Your task to perform on an android device: open chrome and create a bookmark for the current page Image 0: 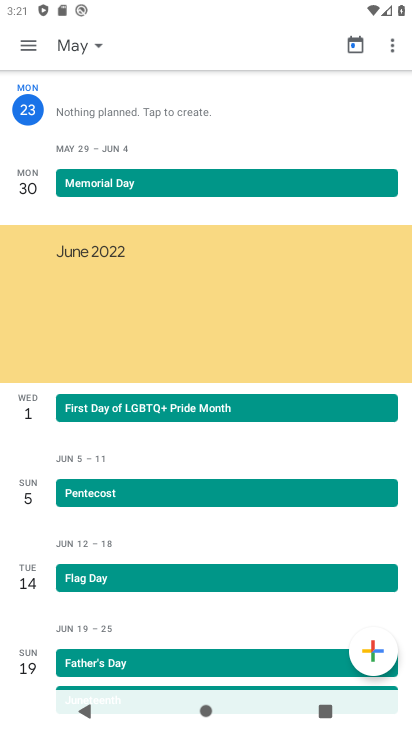
Step 0: press home button
Your task to perform on an android device: open chrome and create a bookmark for the current page Image 1: 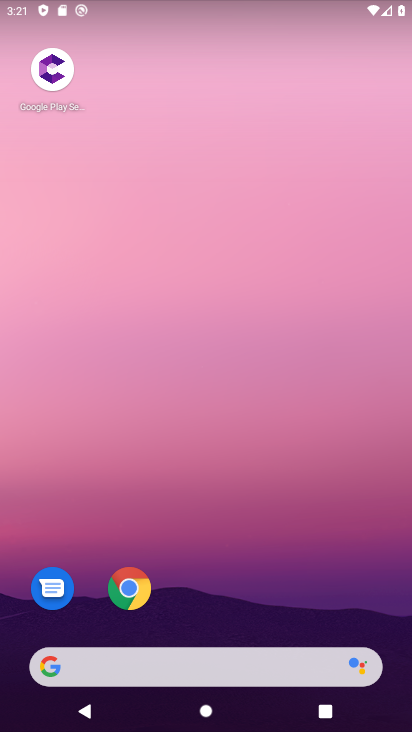
Step 1: click (126, 597)
Your task to perform on an android device: open chrome and create a bookmark for the current page Image 2: 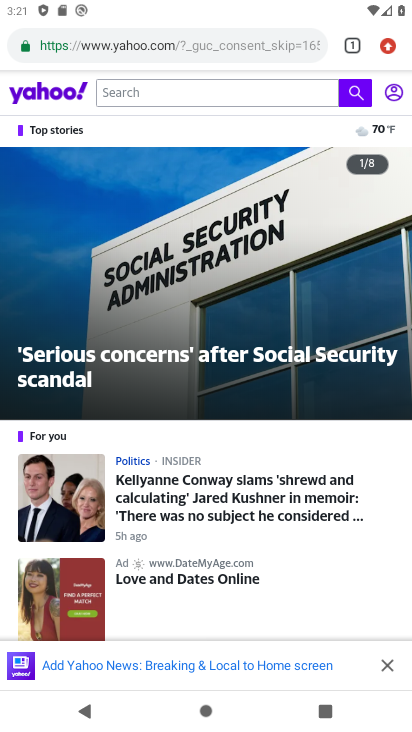
Step 2: click (386, 47)
Your task to perform on an android device: open chrome and create a bookmark for the current page Image 3: 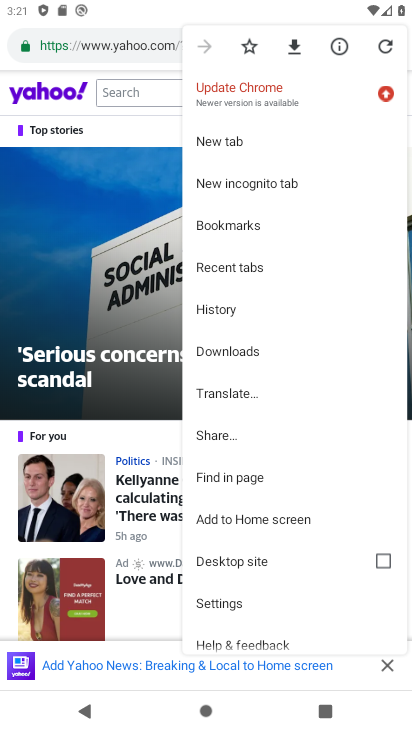
Step 3: click (253, 52)
Your task to perform on an android device: open chrome and create a bookmark for the current page Image 4: 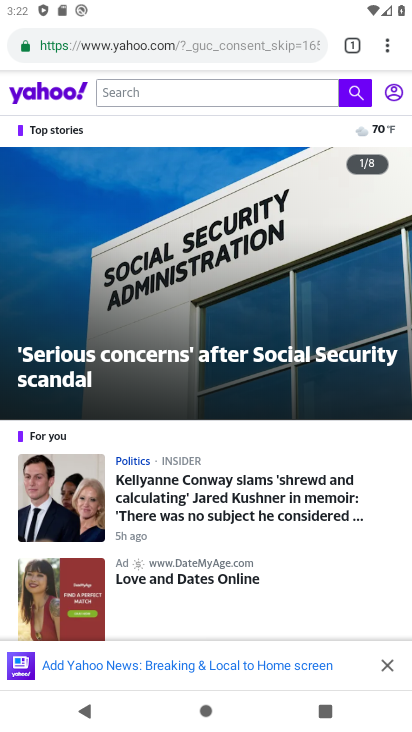
Step 4: task complete